Your task to perform on an android device: turn notification dots off Image 0: 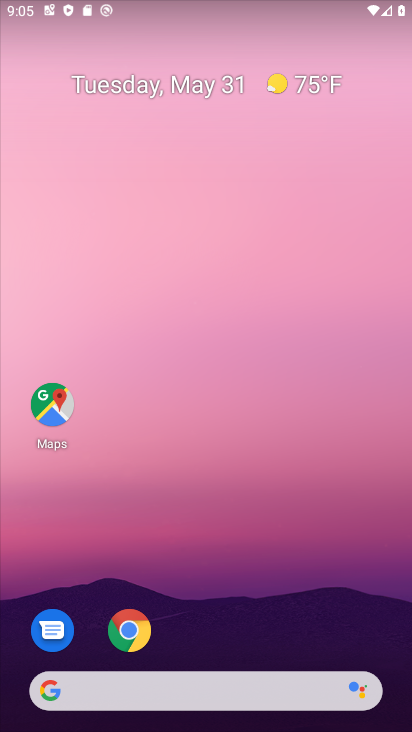
Step 0: drag from (202, 617) to (259, 172)
Your task to perform on an android device: turn notification dots off Image 1: 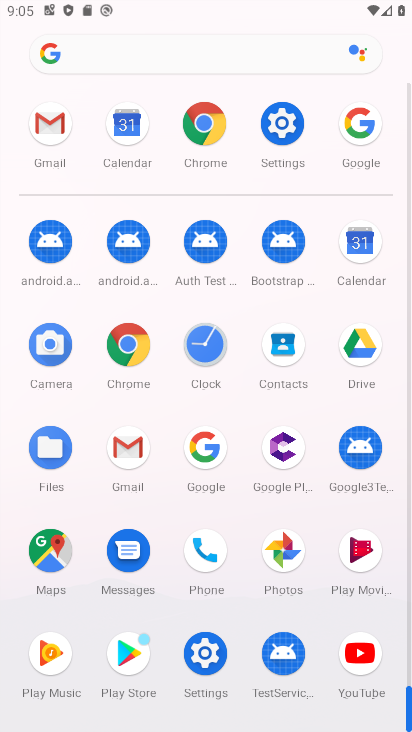
Step 1: click (283, 149)
Your task to perform on an android device: turn notification dots off Image 2: 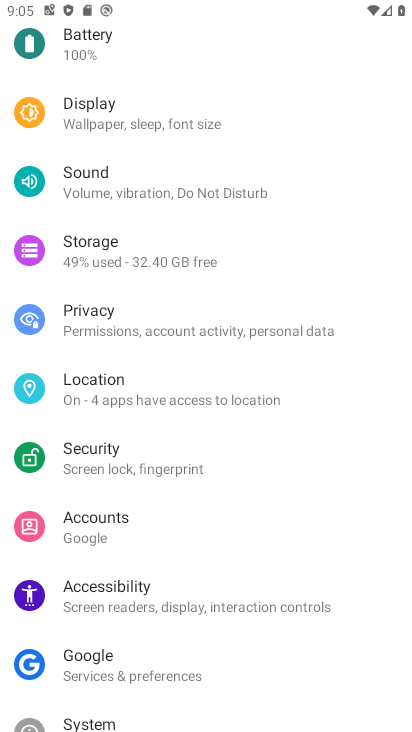
Step 2: drag from (194, 325) to (151, 626)
Your task to perform on an android device: turn notification dots off Image 3: 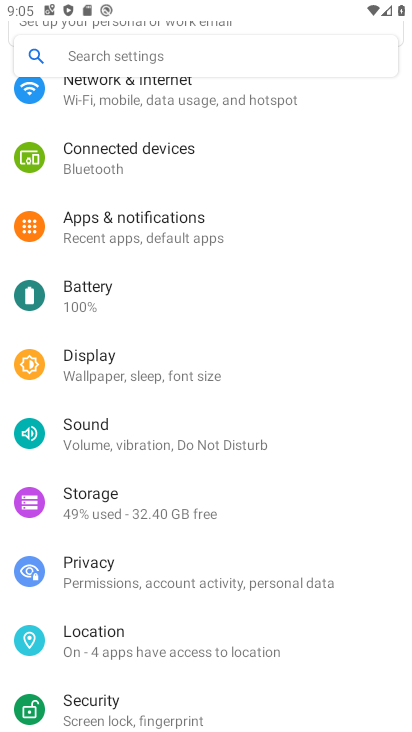
Step 3: click (203, 218)
Your task to perform on an android device: turn notification dots off Image 4: 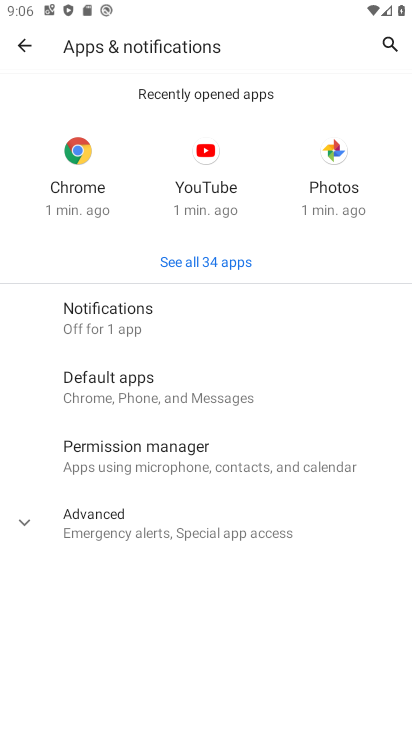
Step 4: click (178, 519)
Your task to perform on an android device: turn notification dots off Image 5: 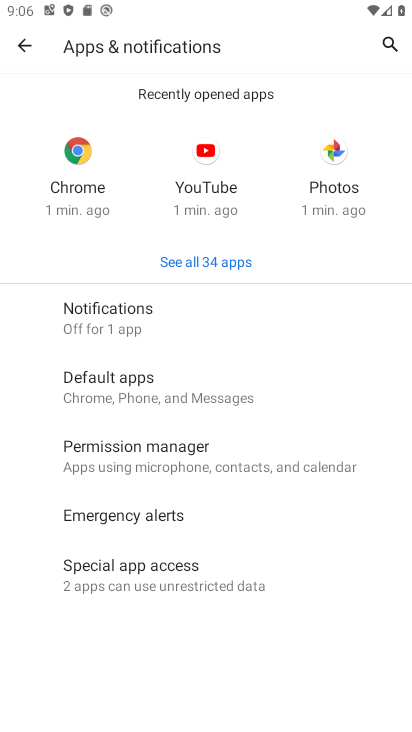
Step 5: click (196, 313)
Your task to perform on an android device: turn notification dots off Image 6: 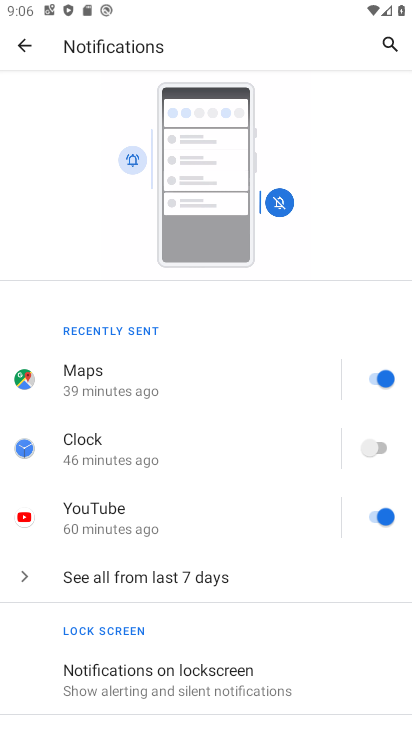
Step 6: drag from (192, 471) to (210, 231)
Your task to perform on an android device: turn notification dots off Image 7: 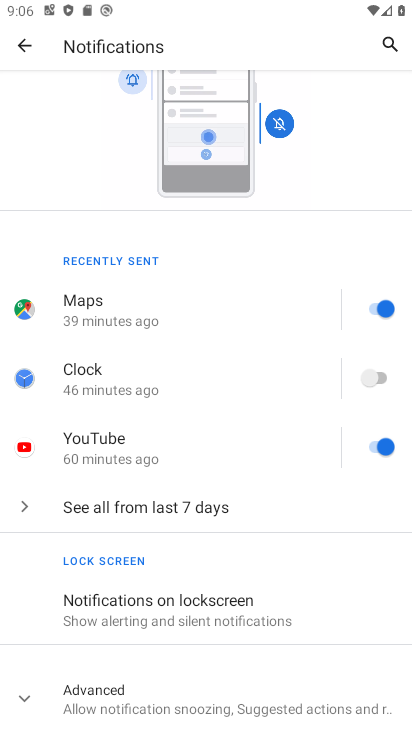
Step 7: click (166, 714)
Your task to perform on an android device: turn notification dots off Image 8: 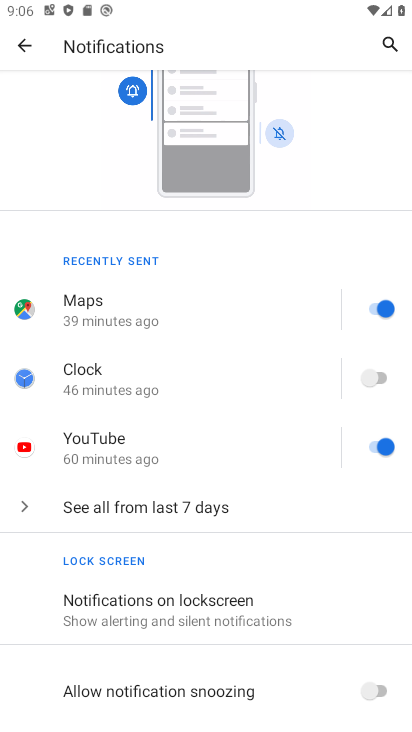
Step 8: drag from (222, 654) to (231, 344)
Your task to perform on an android device: turn notification dots off Image 9: 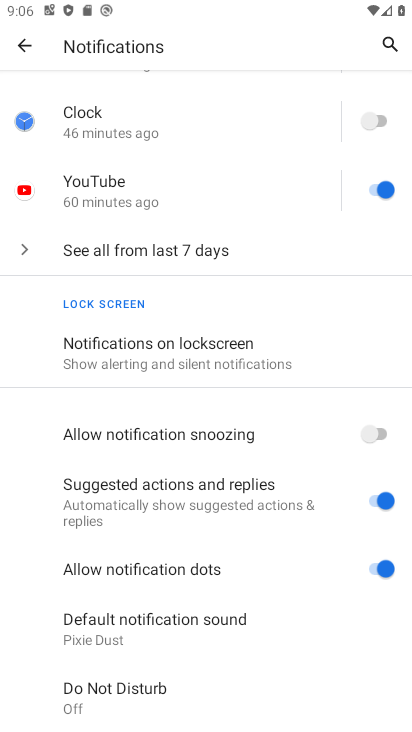
Step 9: click (272, 577)
Your task to perform on an android device: turn notification dots off Image 10: 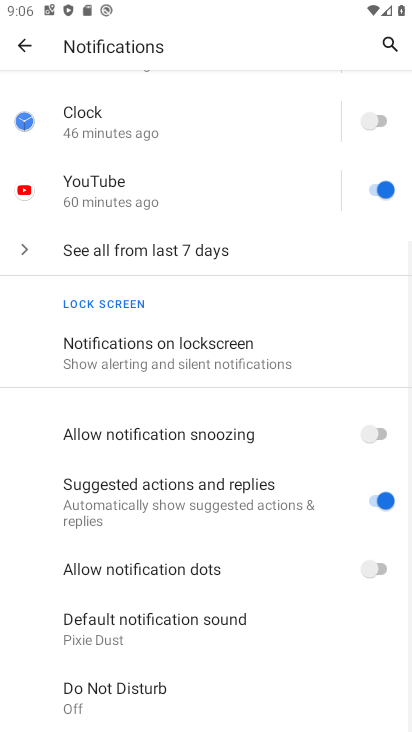
Step 10: task complete